Your task to perform on an android device: Toggle the flashlight Image 0: 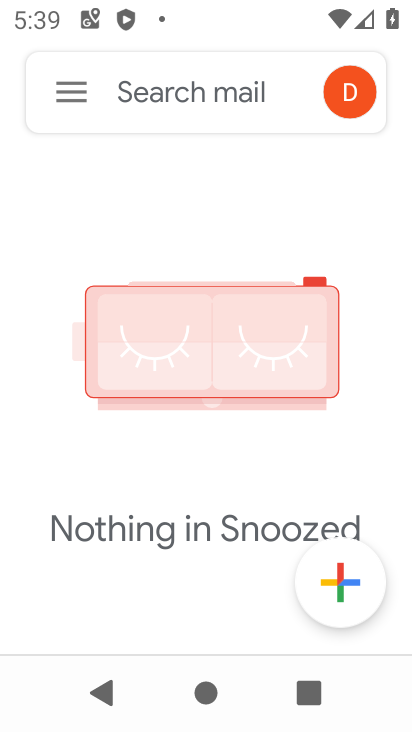
Step 0: press back button
Your task to perform on an android device: Toggle the flashlight Image 1: 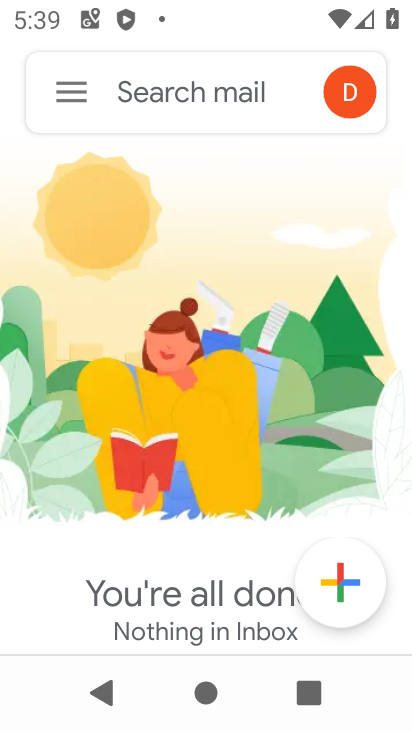
Step 1: press back button
Your task to perform on an android device: Toggle the flashlight Image 2: 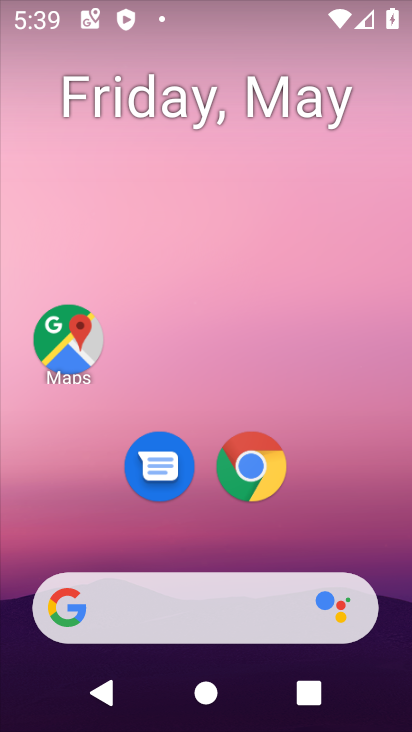
Step 2: drag from (348, 523) to (257, 62)
Your task to perform on an android device: Toggle the flashlight Image 3: 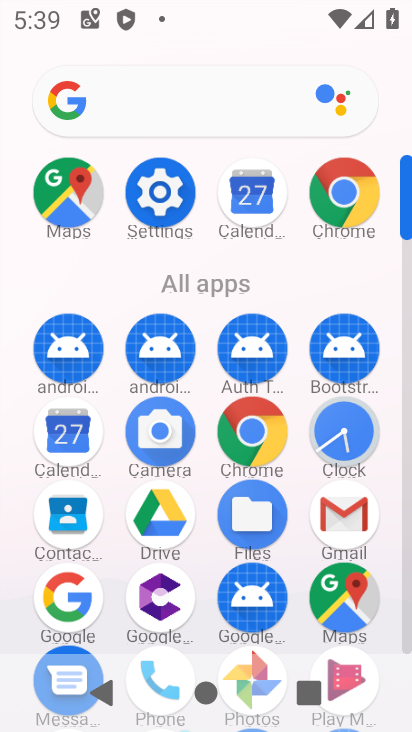
Step 3: click (158, 187)
Your task to perform on an android device: Toggle the flashlight Image 4: 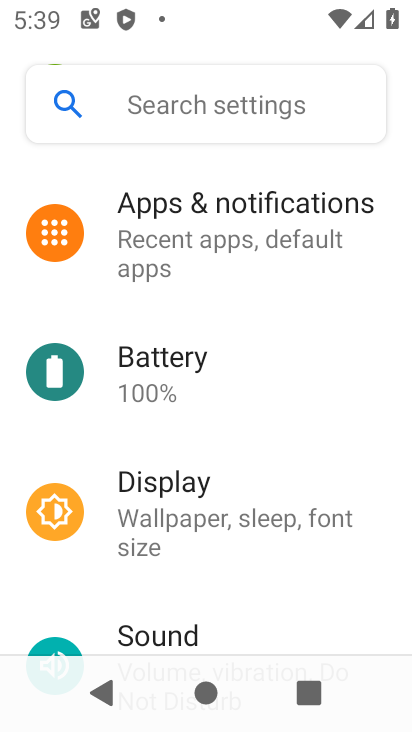
Step 4: click (180, 216)
Your task to perform on an android device: Toggle the flashlight Image 5: 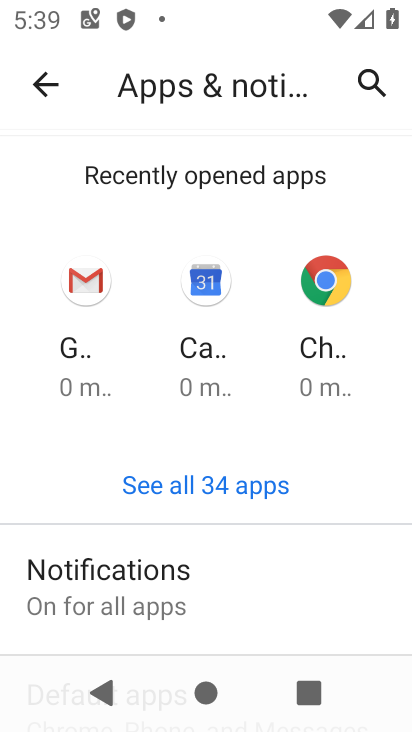
Step 5: press back button
Your task to perform on an android device: Toggle the flashlight Image 6: 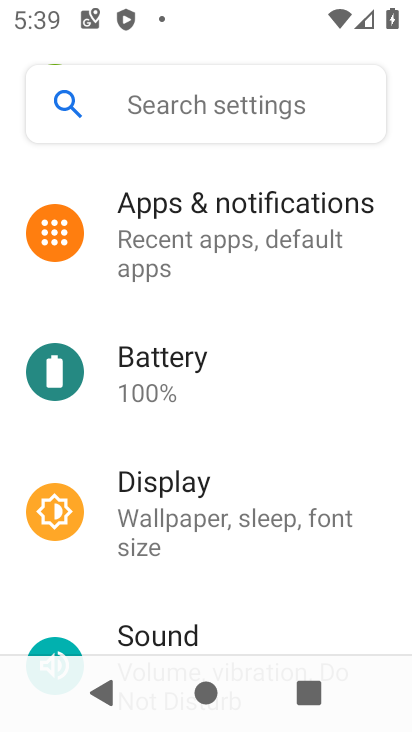
Step 6: click (225, 243)
Your task to perform on an android device: Toggle the flashlight Image 7: 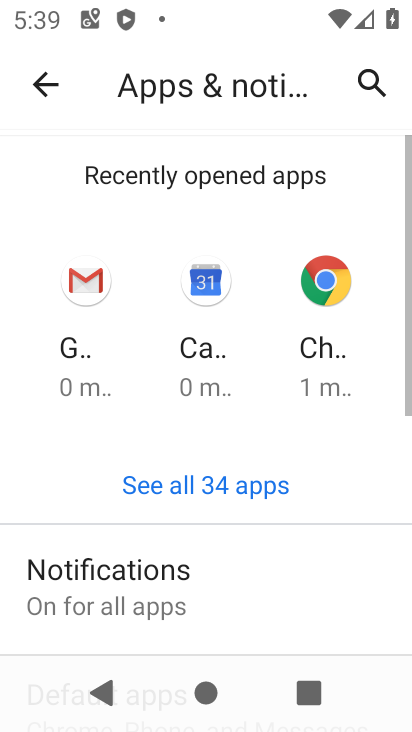
Step 7: drag from (238, 608) to (266, 168)
Your task to perform on an android device: Toggle the flashlight Image 8: 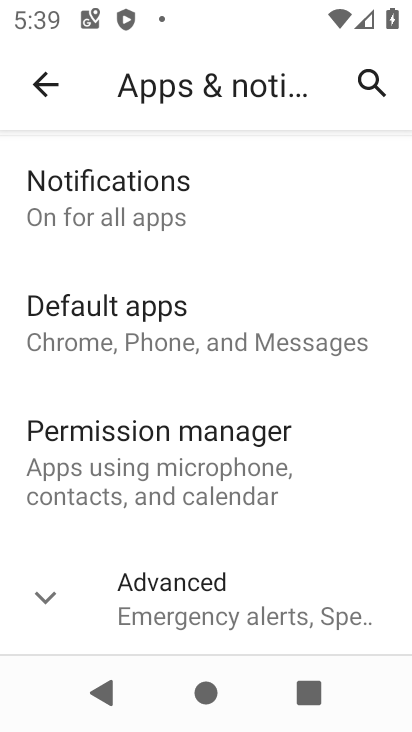
Step 8: drag from (232, 502) to (218, 168)
Your task to perform on an android device: Toggle the flashlight Image 9: 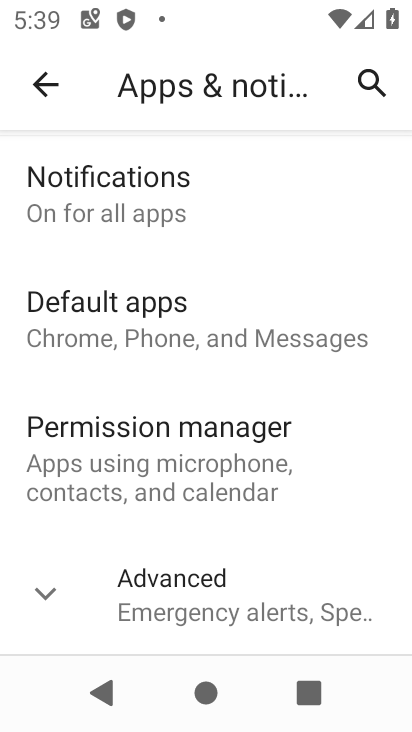
Step 9: drag from (217, 498) to (219, 198)
Your task to perform on an android device: Toggle the flashlight Image 10: 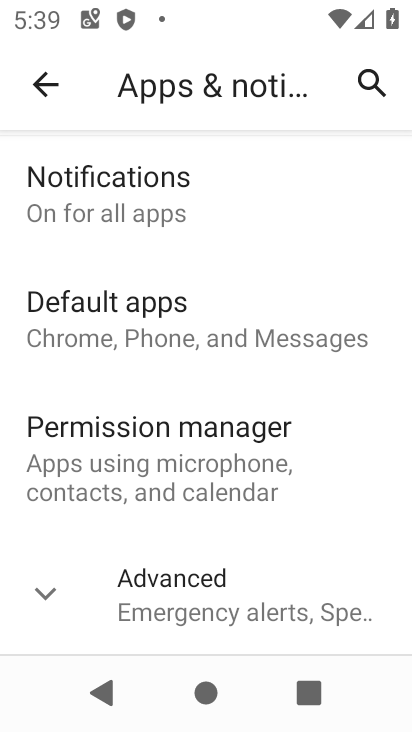
Step 10: click (58, 578)
Your task to perform on an android device: Toggle the flashlight Image 11: 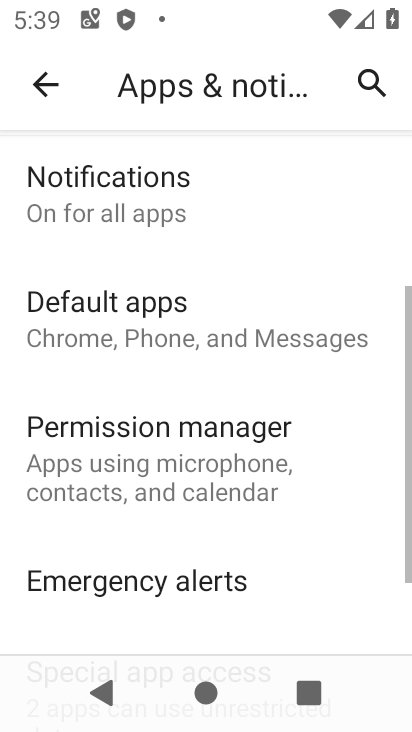
Step 11: task complete